Your task to perform on an android device: toggle improve location accuracy Image 0: 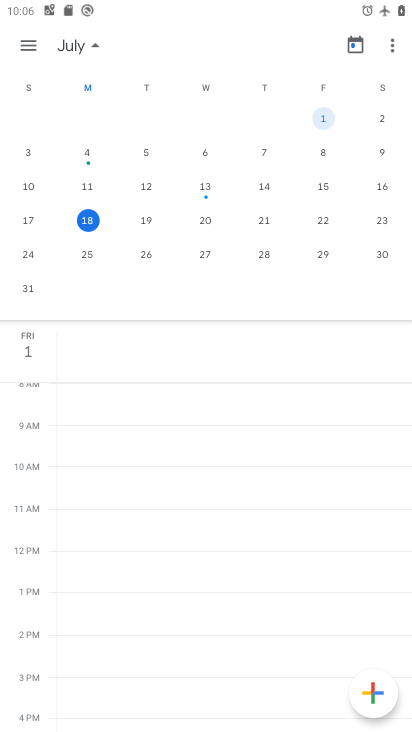
Step 0: press home button
Your task to perform on an android device: toggle improve location accuracy Image 1: 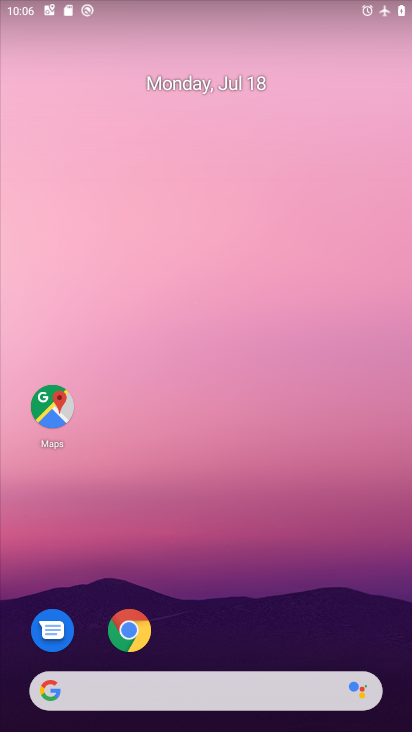
Step 1: drag from (225, 614) to (242, 209)
Your task to perform on an android device: toggle improve location accuracy Image 2: 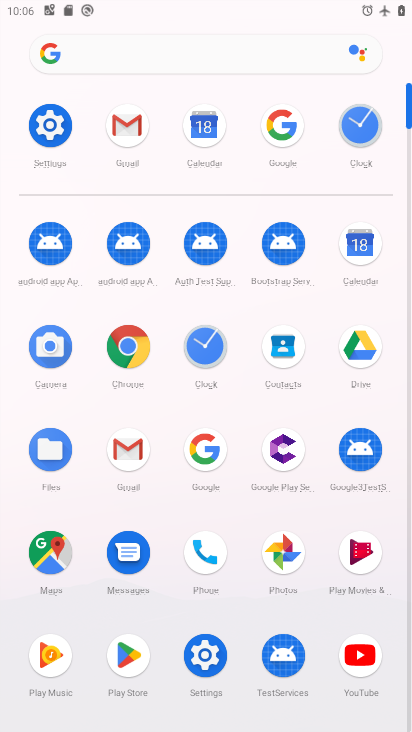
Step 2: click (63, 128)
Your task to perform on an android device: toggle improve location accuracy Image 3: 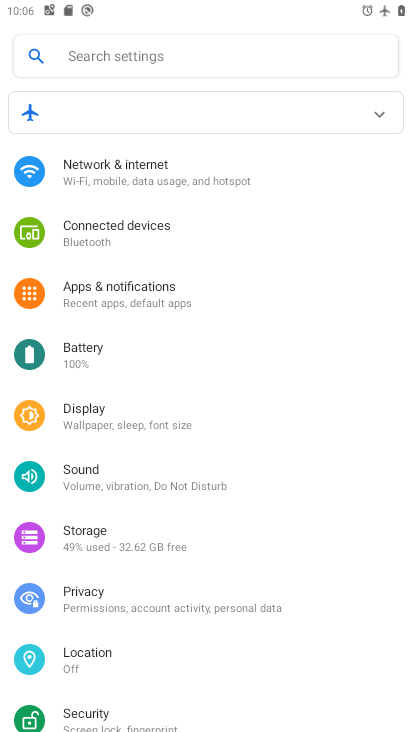
Step 3: click (145, 646)
Your task to perform on an android device: toggle improve location accuracy Image 4: 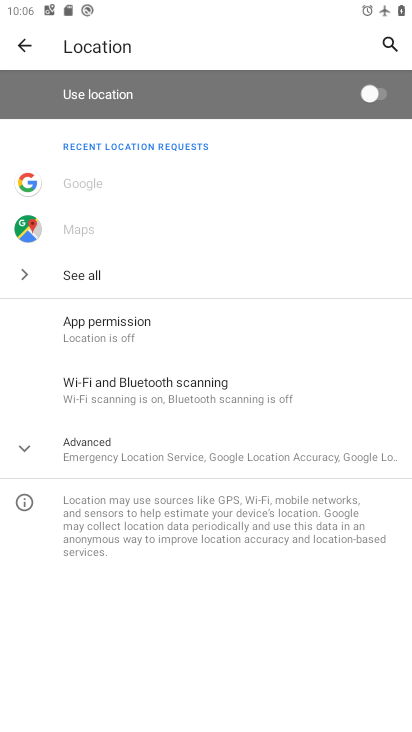
Step 4: click (179, 458)
Your task to perform on an android device: toggle improve location accuracy Image 5: 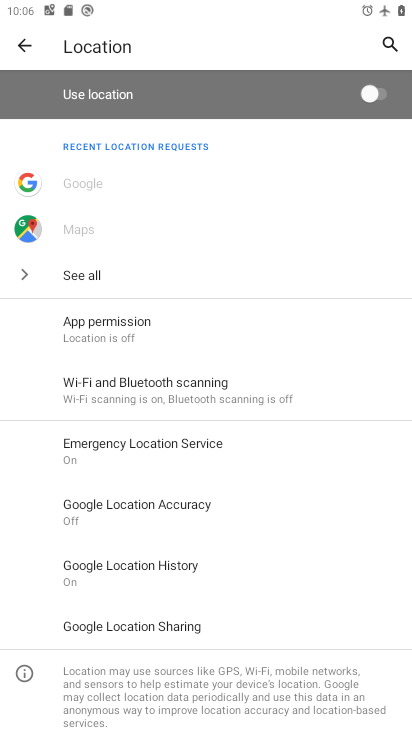
Step 5: click (208, 499)
Your task to perform on an android device: toggle improve location accuracy Image 6: 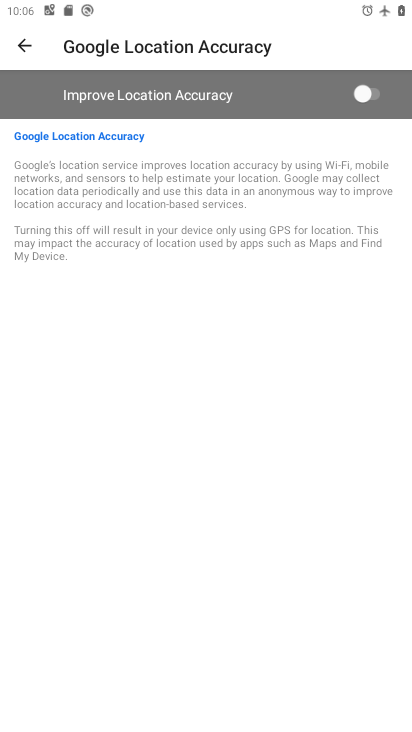
Step 6: click (375, 85)
Your task to perform on an android device: toggle improve location accuracy Image 7: 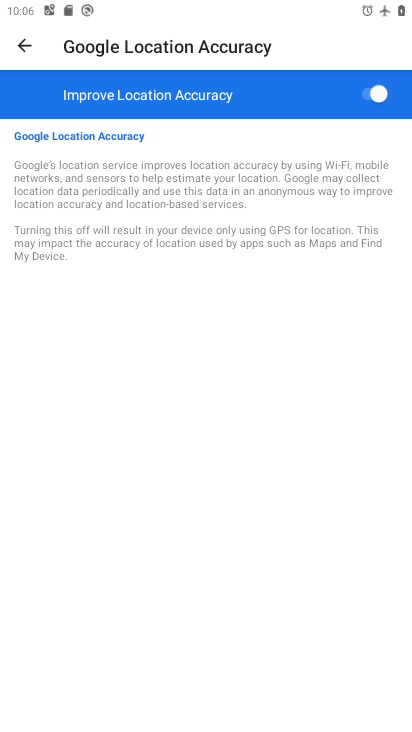
Step 7: task complete